Your task to perform on an android device: change text size in settings app Image 0: 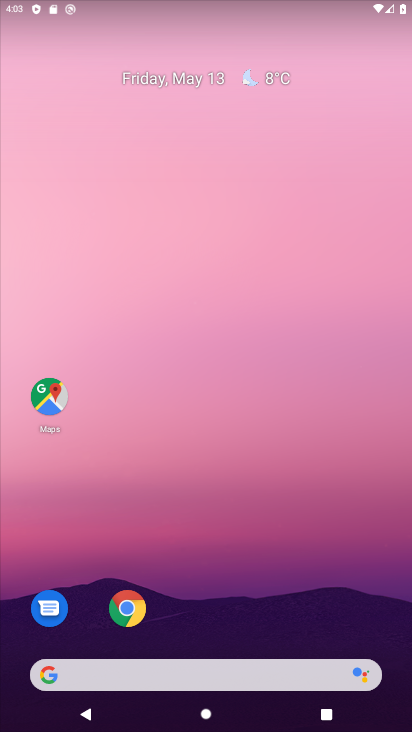
Step 0: drag from (230, 541) to (208, 57)
Your task to perform on an android device: change text size in settings app Image 1: 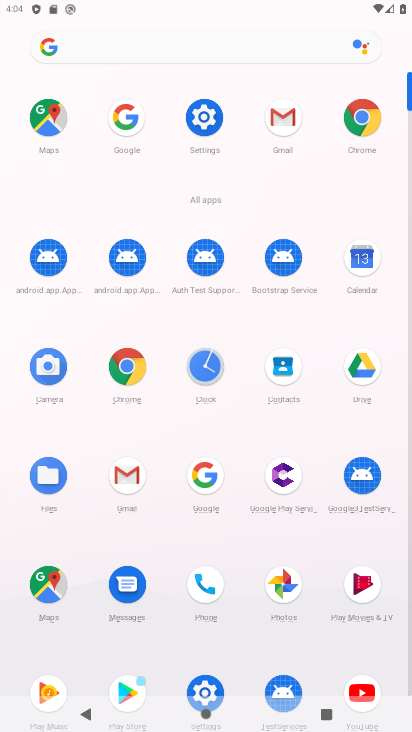
Step 1: click (208, 118)
Your task to perform on an android device: change text size in settings app Image 2: 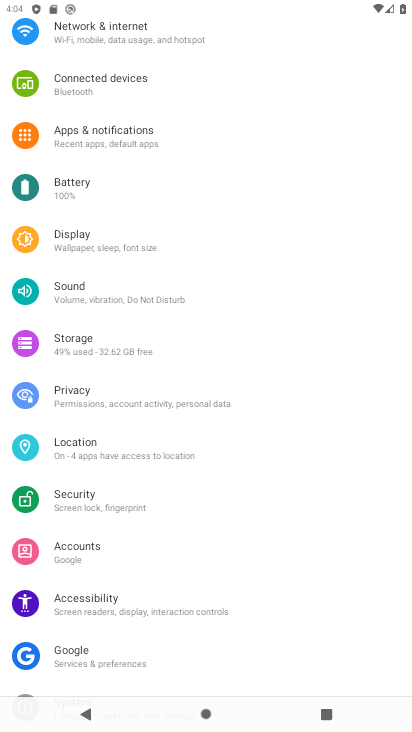
Step 2: click (118, 234)
Your task to perform on an android device: change text size in settings app Image 3: 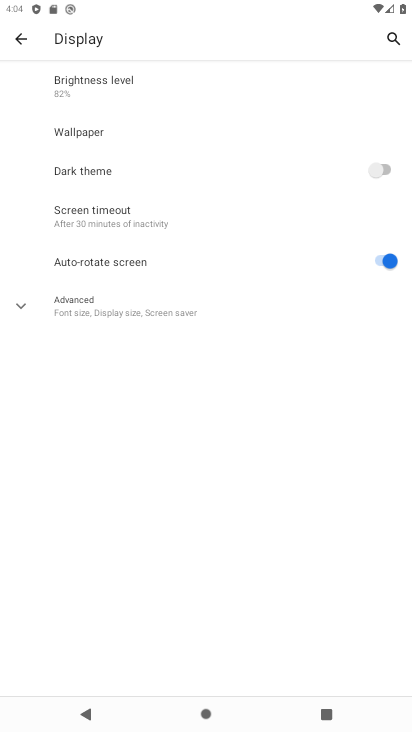
Step 3: click (103, 316)
Your task to perform on an android device: change text size in settings app Image 4: 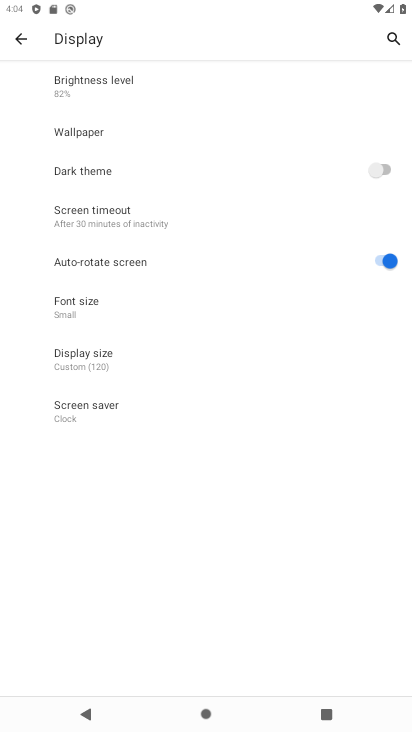
Step 4: click (109, 319)
Your task to perform on an android device: change text size in settings app Image 5: 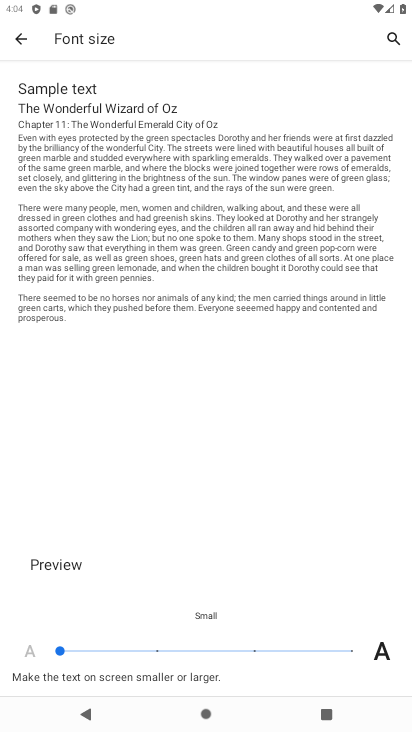
Step 5: click (157, 650)
Your task to perform on an android device: change text size in settings app Image 6: 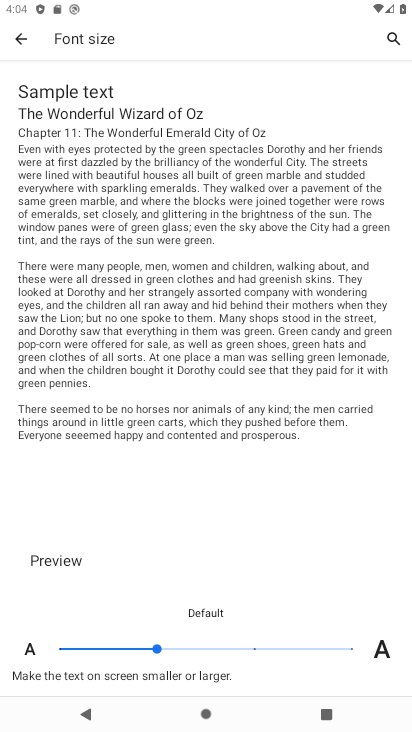
Step 6: task complete